Your task to perform on an android device: Go to notification settings Image 0: 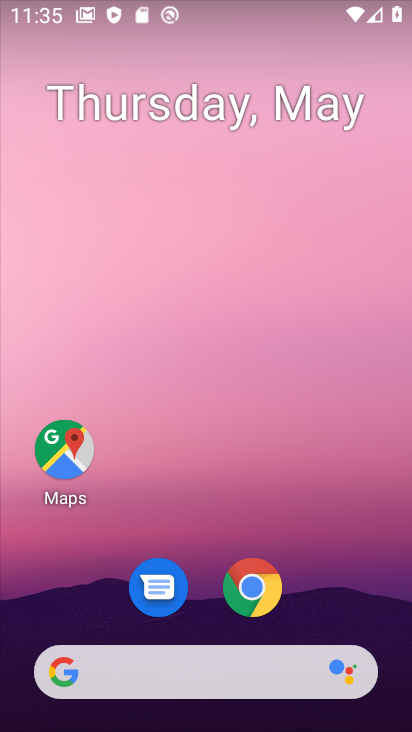
Step 0: drag from (145, 600) to (196, 149)
Your task to perform on an android device: Go to notification settings Image 1: 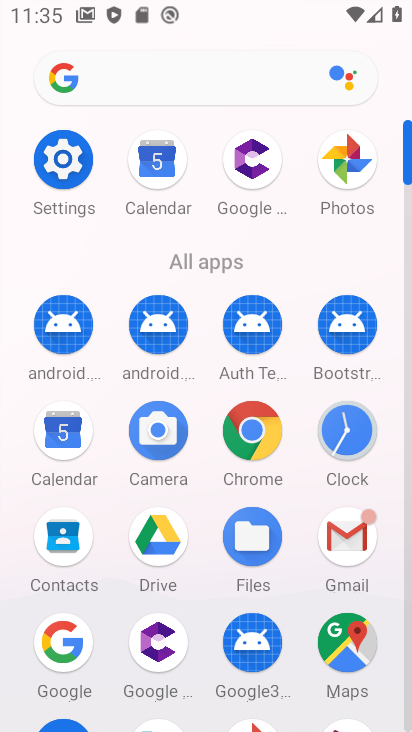
Step 1: click (67, 167)
Your task to perform on an android device: Go to notification settings Image 2: 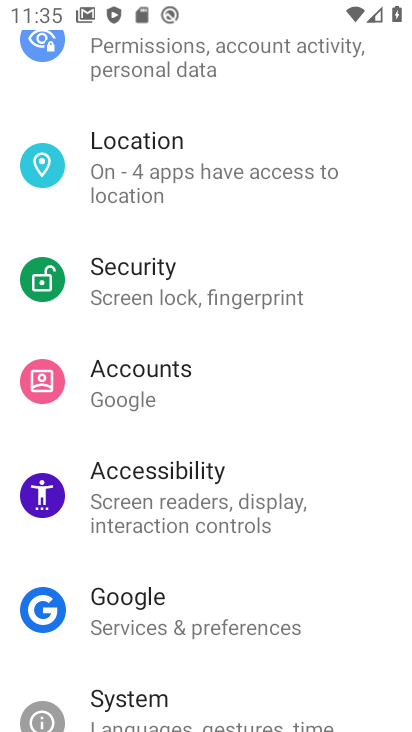
Step 2: drag from (224, 190) to (176, 717)
Your task to perform on an android device: Go to notification settings Image 3: 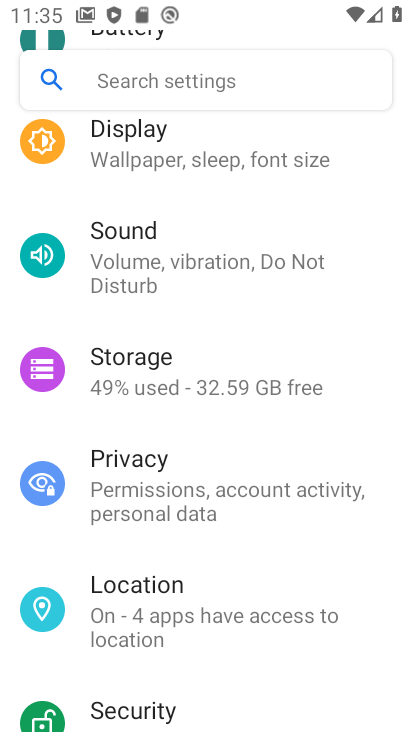
Step 3: drag from (183, 176) to (165, 731)
Your task to perform on an android device: Go to notification settings Image 4: 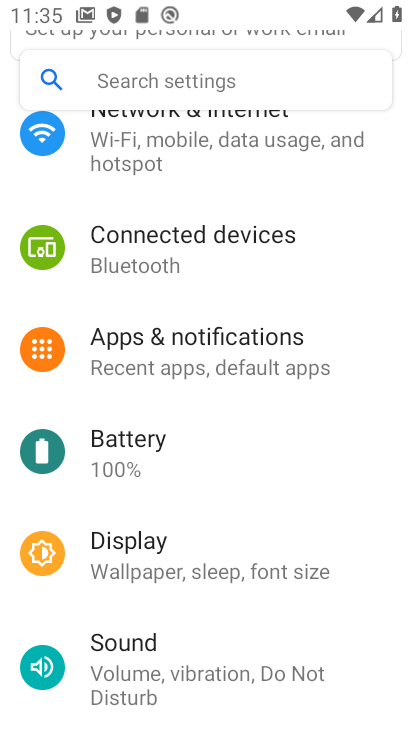
Step 4: click (169, 341)
Your task to perform on an android device: Go to notification settings Image 5: 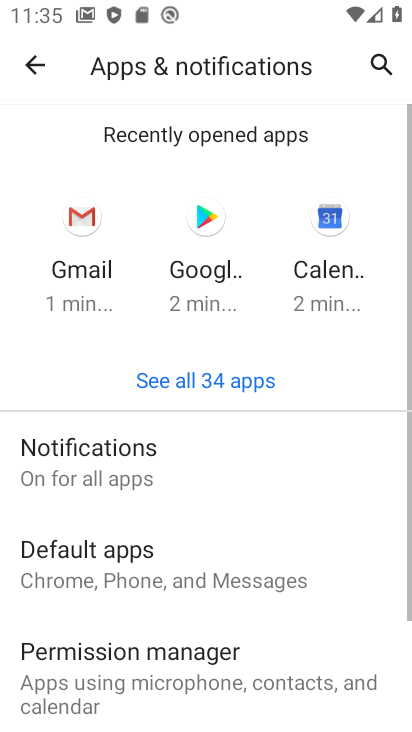
Step 5: task complete